Your task to perform on an android device: Open calendar and show me the third week of next month Image 0: 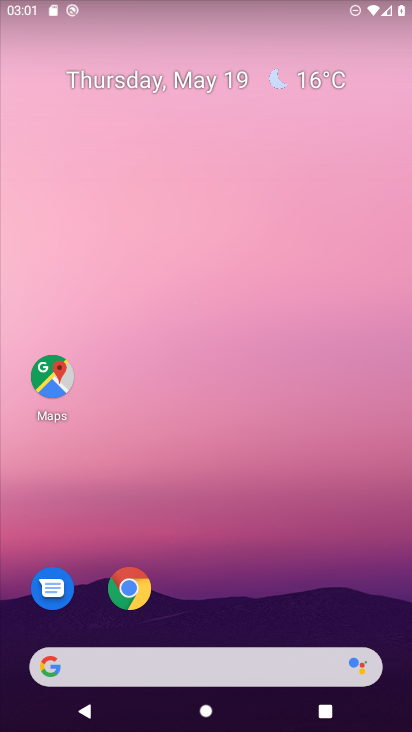
Step 0: drag from (264, 632) to (332, 13)
Your task to perform on an android device: Open calendar and show me the third week of next month Image 1: 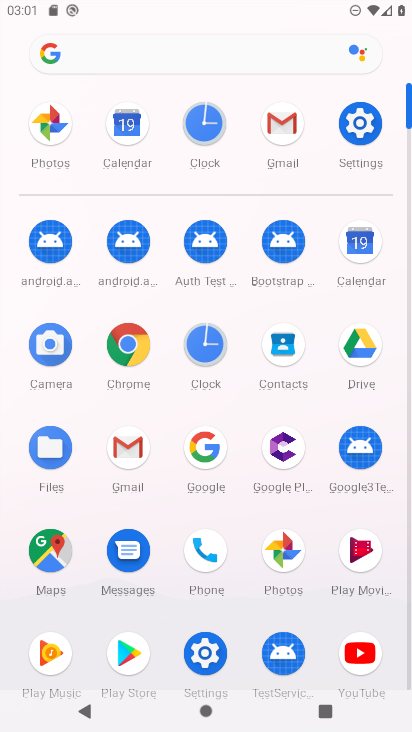
Step 1: click (352, 240)
Your task to perform on an android device: Open calendar and show me the third week of next month Image 2: 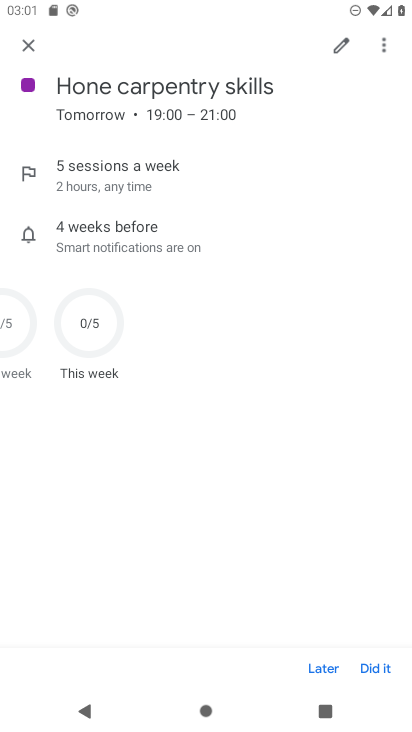
Step 2: click (30, 48)
Your task to perform on an android device: Open calendar and show me the third week of next month Image 3: 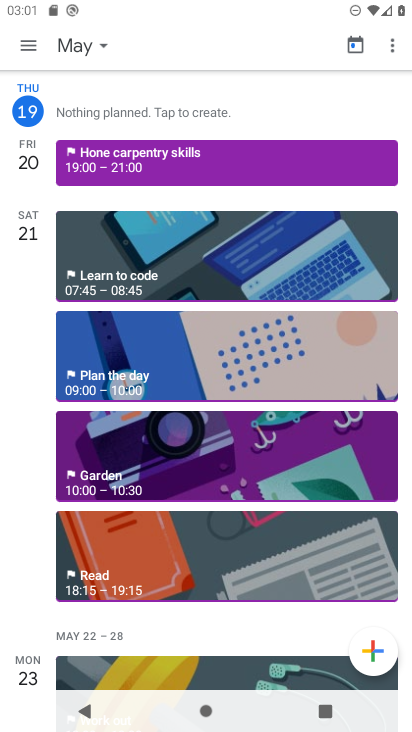
Step 3: click (99, 57)
Your task to perform on an android device: Open calendar and show me the third week of next month Image 4: 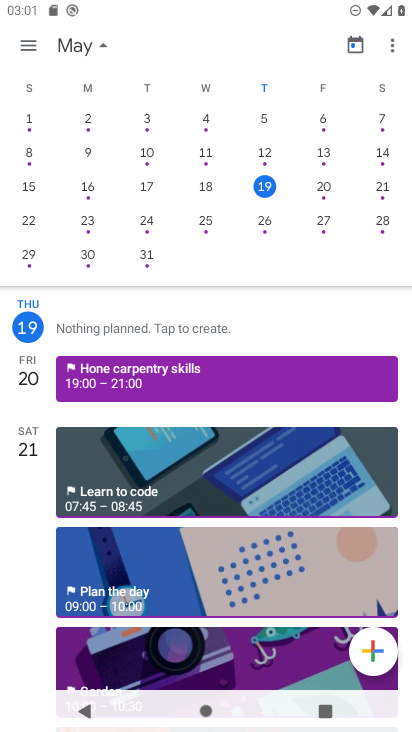
Step 4: drag from (386, 192) to (0, 7)
Your task to perform on an android device: Open calendar and show me the third week of next month Image 5: 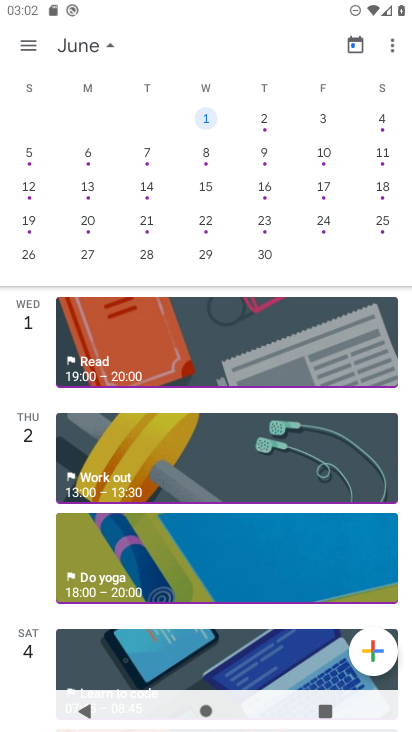
Step 5: click (29, 48)
Your task to perform on an android device: Open calendar and show me the third week of next month Image 6: 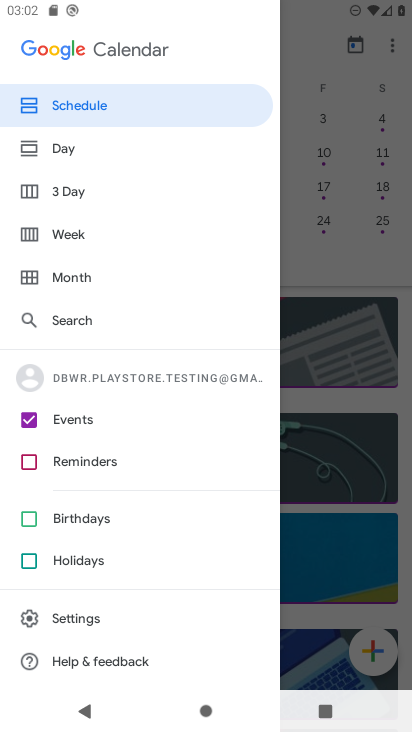
Step 6: click (81, 240)
Your task to perform on an android device: Open calendar and show me the third week of next month Image 7: 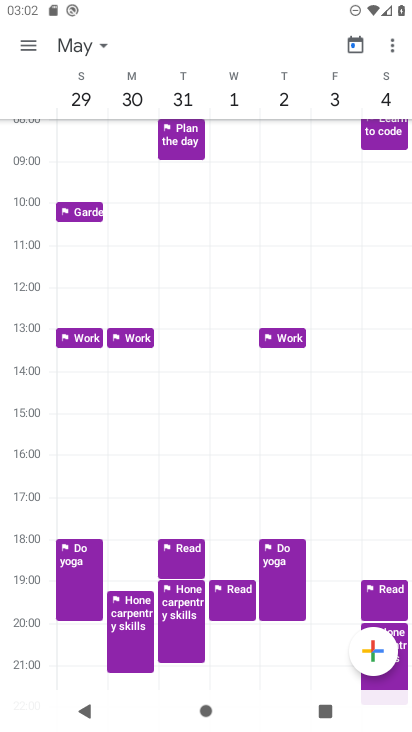
Step 7: task complete